Your task to perform on an android device: turn off data saver in the chrome app Image 0: 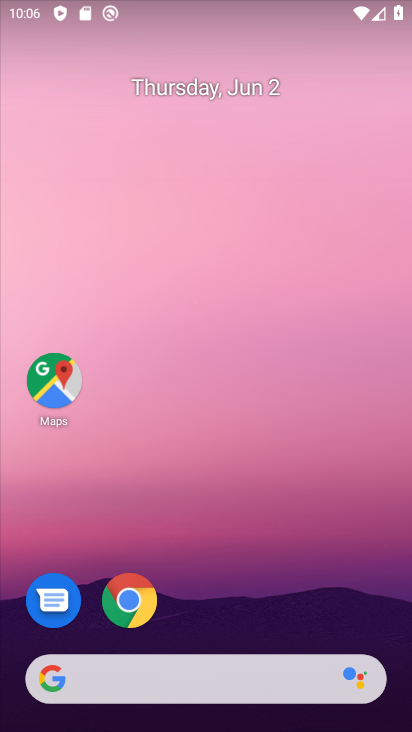
Step 0: click (125, 597)
Your task to perform on an android device: turn off data saver in the chrome app Image 1: 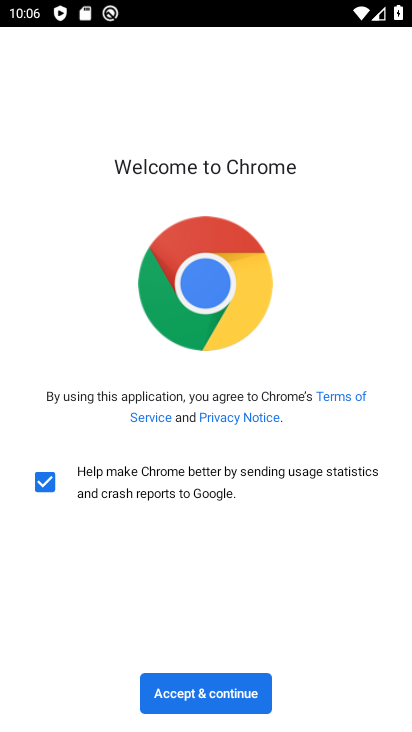
Step 1: click (200, 694)
Your task to perform on an android device: turn off data saver in the chrome app Image 2: 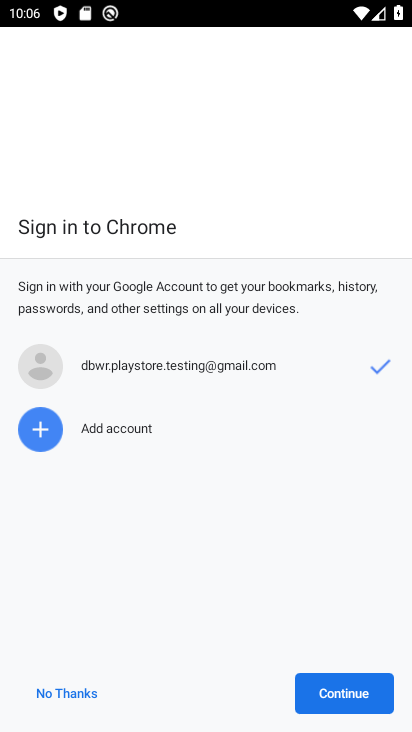
Step 2: click (329, 694)
Your task to perform on an android device: turn off data saver in the chrome app Image 3: 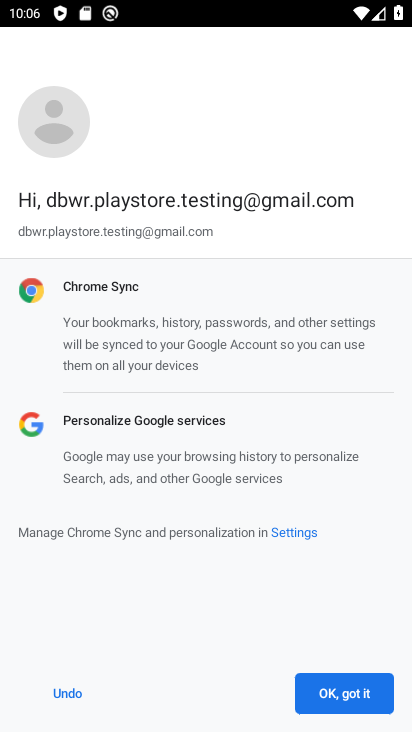
Step 3: click (329, 694)
Your task to perform on an android device: turn off data saver in the chrome app Image 4: 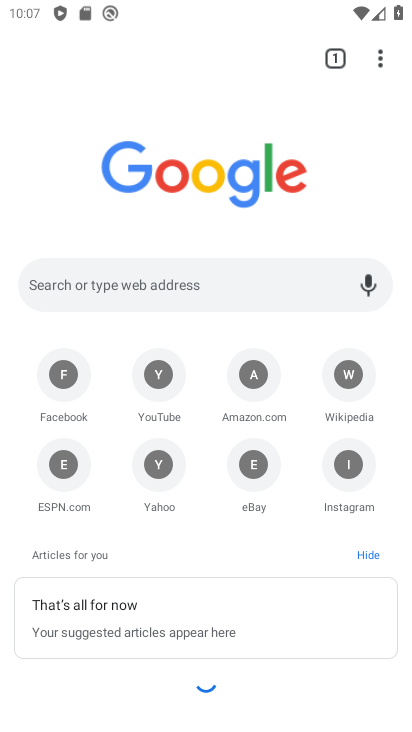
Step 4: click (374, 56)
Your task to perform on an android device: turn off data saver in the chrome app Image 5: 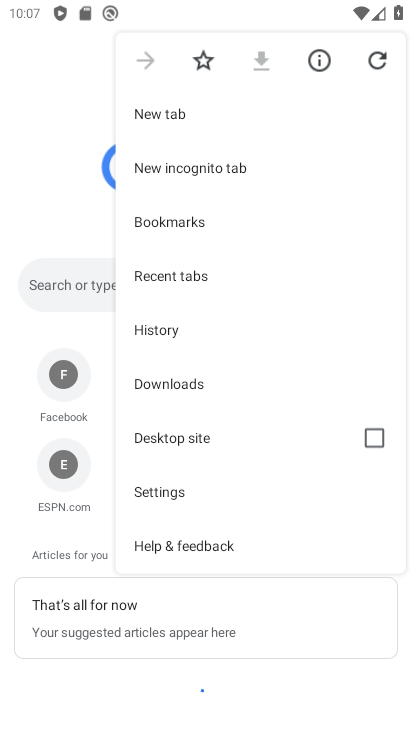
Step 5: click (170, 494)
Your task to perform on an android device: turn off data saver in the chrome app Image 6: 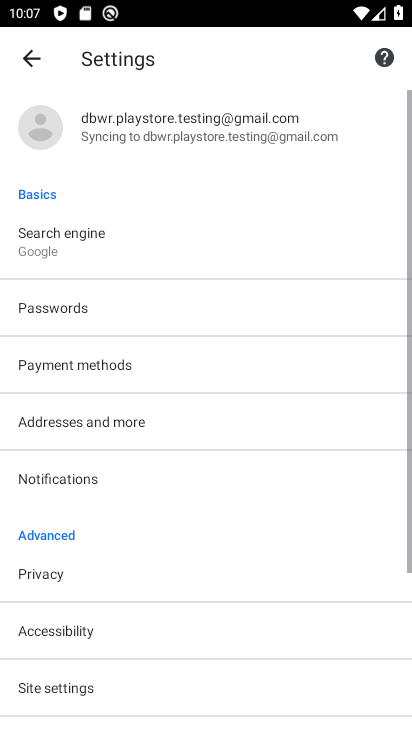
Step 6: drag from (189, 546) to (230, 199)
Your task to perform on an android device: turn off data saver in the chrome app Image 7: 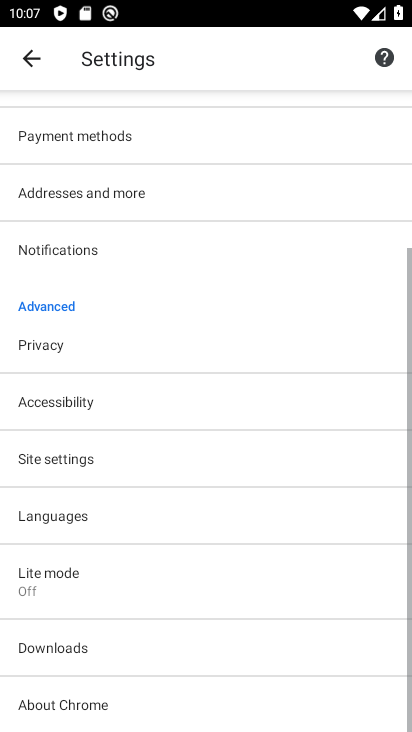
Step 7: click (87, 580)
Your task to perform on an android device: turn off data saver in the chrome app Image 8: 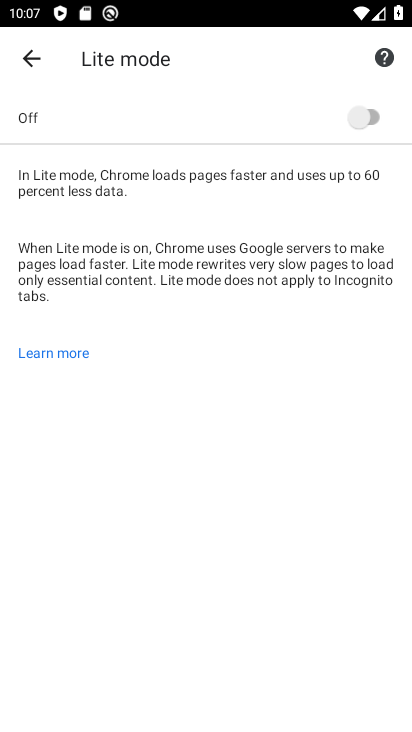
Step 8: task complete